Your task to perform on an android device: Open Yahoo.com Image 0: 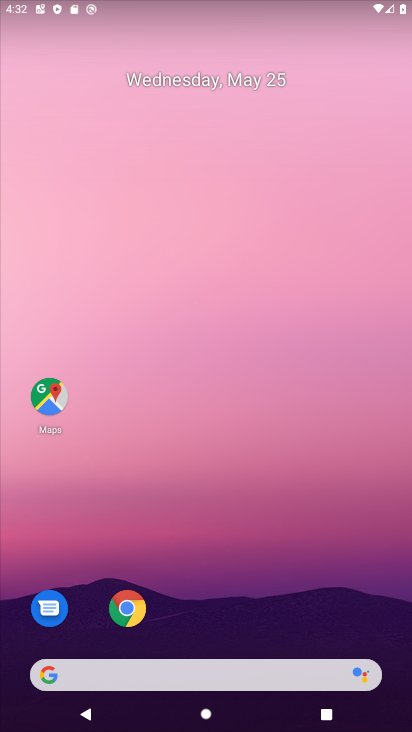
Step 0: click (211, 683)
Your task to perform on an android device: Open Yahoo.com Image 1: 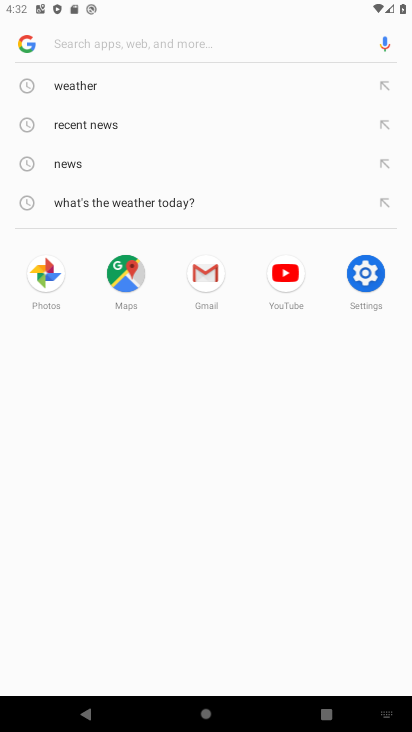
Step 1: type "yahoo.com"
Your task to perform on an android device: Open Yahoo.com Image 2: 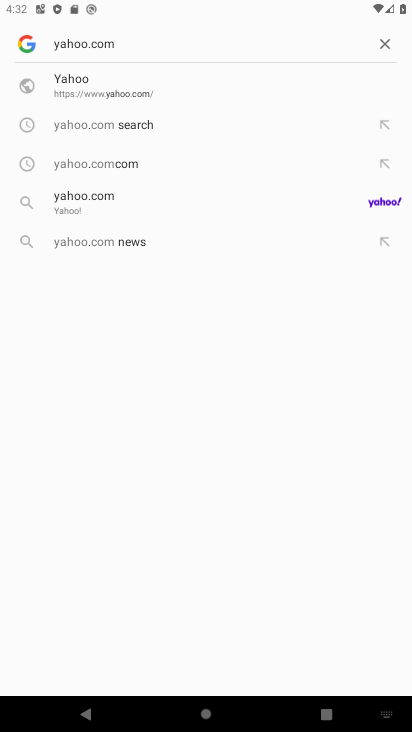
Step 2: click (196, 88)
Your task to perform on an android device: Open Yahoo.com Image 3: 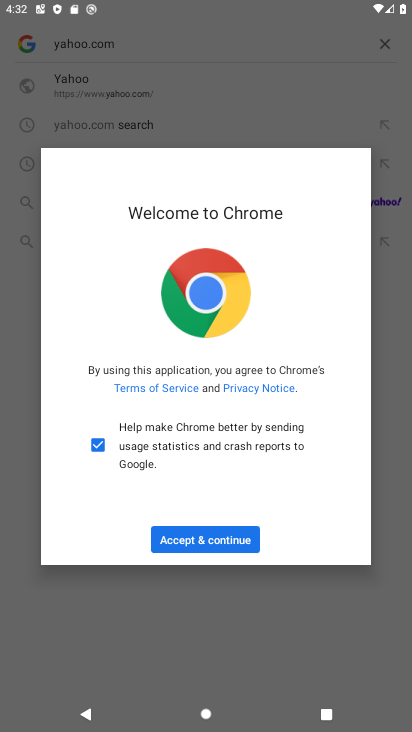
Step 3: click (200, 540)
Your task to perform on an android device: Open Yahoo.com Image 4: 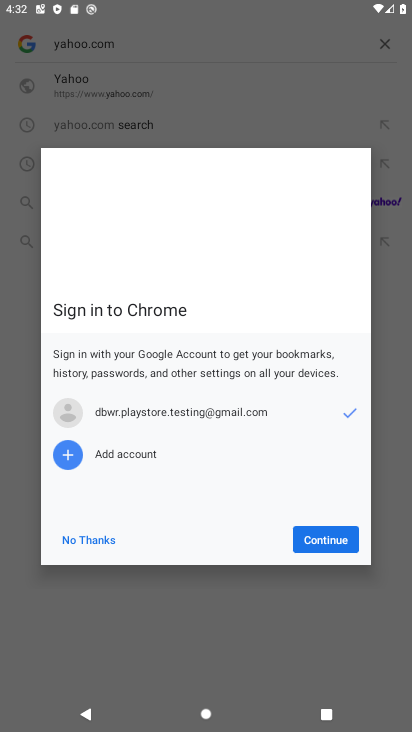
Step 4: click (348, 548)
Your task to perform on an android device: Open Yahoo.com Image 5: 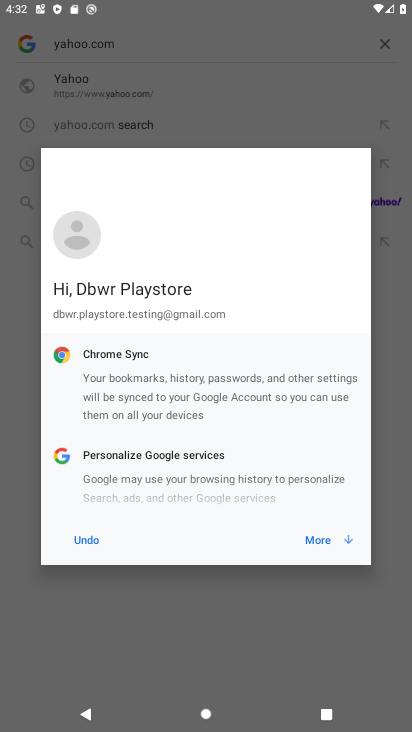
Step 5: click (347, 542)
Your task to perform on an android device: Open Yahoo.com Image 6: 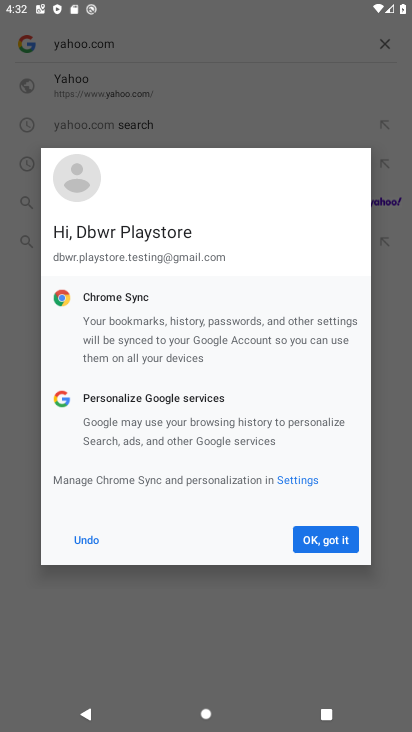
Step 6: click (345, 539)
Your task to perform on an android device: Open Yahoo.com Image 7: 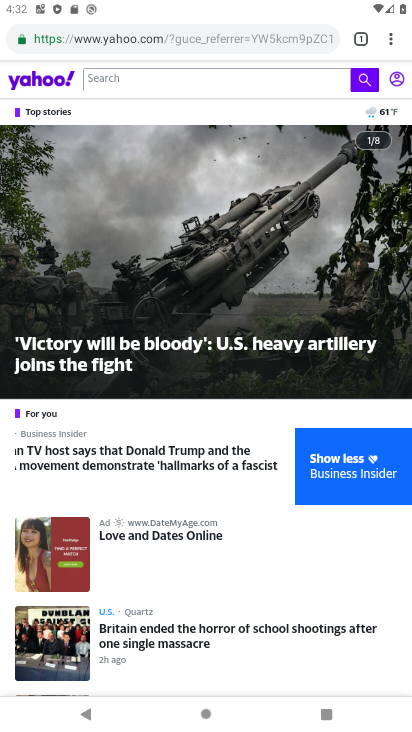
Step 7: task complete